Your task to perform on an android device: Open Google Chrome Image 0: 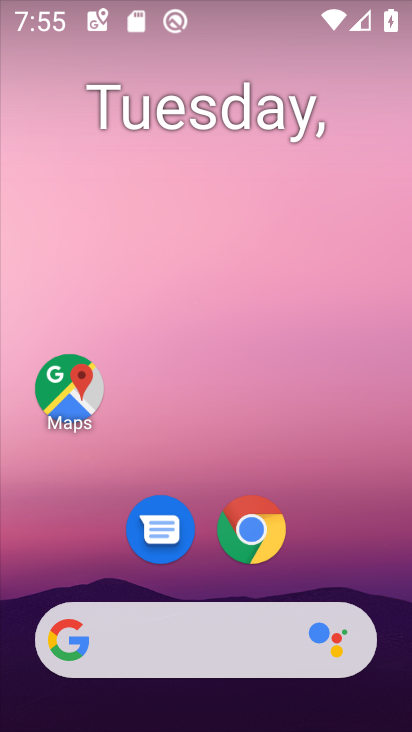
Step 0: click (252, 525)
Your task to perform on an android device: Open Google Chrome Image 1: 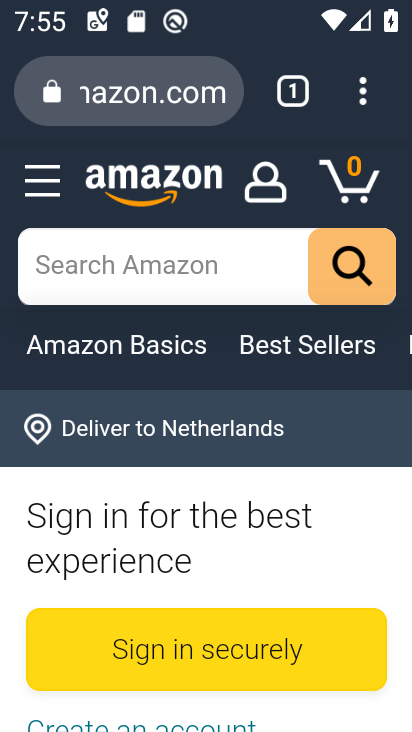
Step 1: task complete